Your task to perform on an android device: Go to Amazon Image 0: 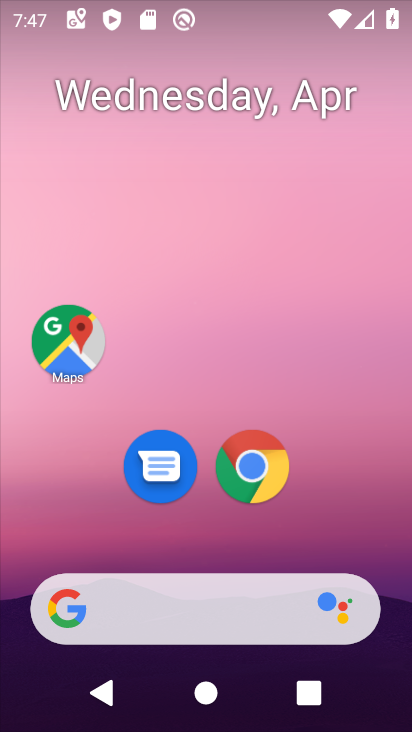
Step 0: click (263, 479)
Your task to perform on an android device: Go to Amazon Image 1: 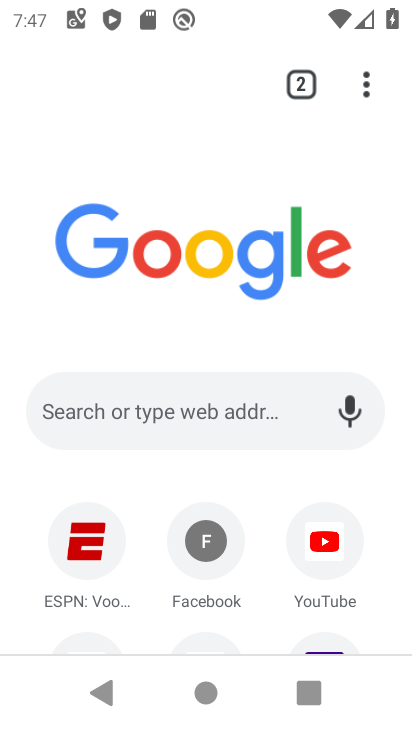
Step 1: drag from (246, 588) to (308, 228)
Your task to perform on an android device: Go to Amazon Image 2: 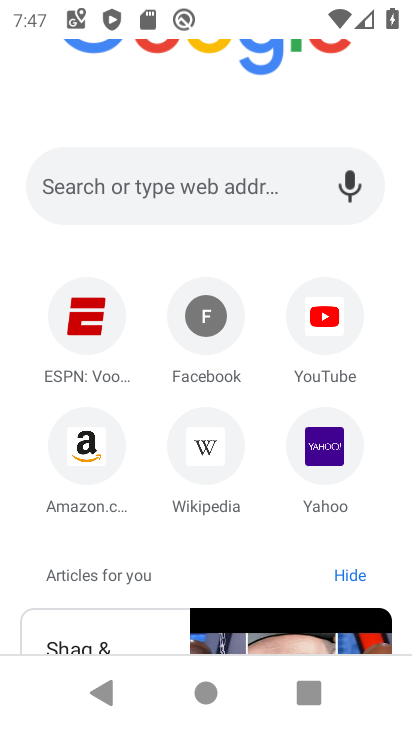
Step 2: click (97, 469)
Your task to perform on an android device: Go to Amazon Image 3: 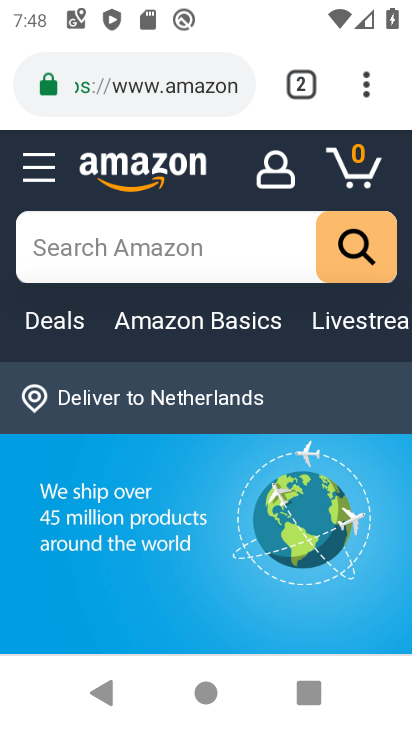
Step 3: task complete